Your task to perform on an android device: Open Google Chrome and open the bookmarks view Image 0: 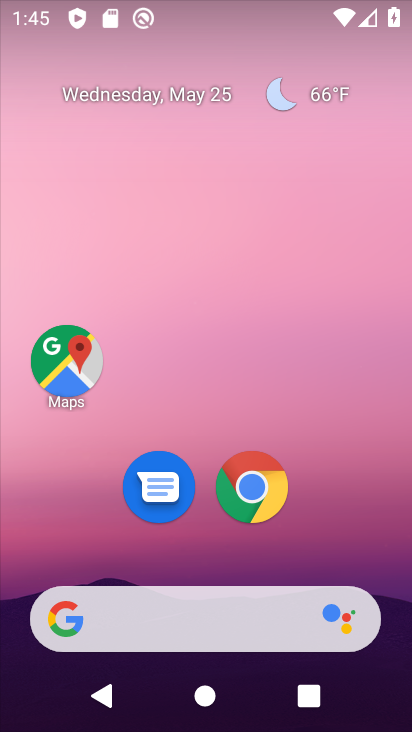
Step 0: drag from (207, 547) to (180, 250)
Your task to perform on an android device: Open Google Chrome and open the bookmarks view Image 1: 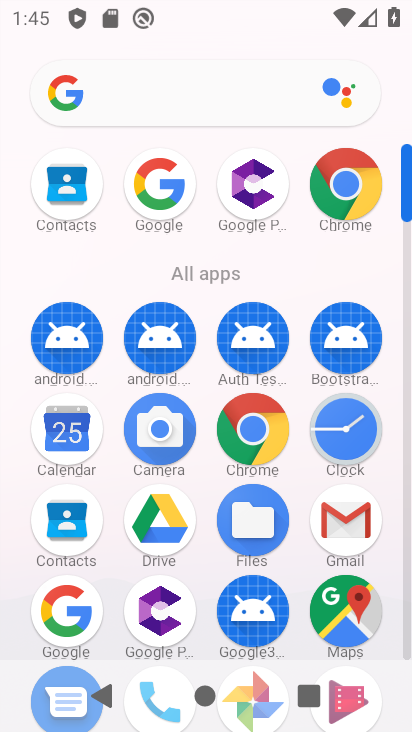
Step 1: click (352, 228)
Your task to perform on an android device: Open Google Chrome and open the bookmarks view Image 2: 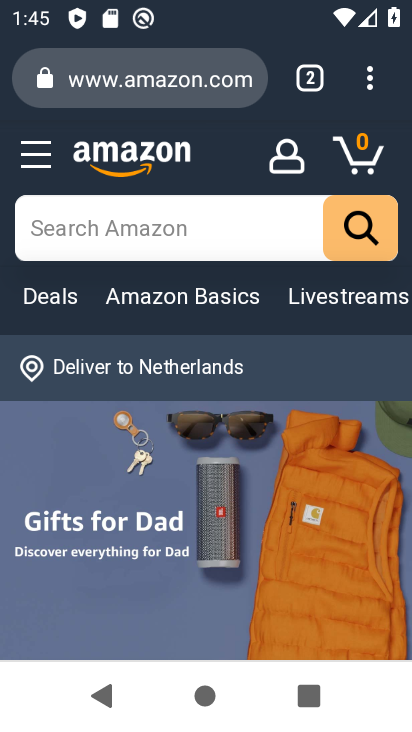
Step 2: click (367, 68)
Your task to perform on an android device: Open Google Chrome and open the bookmarks view Image 3: 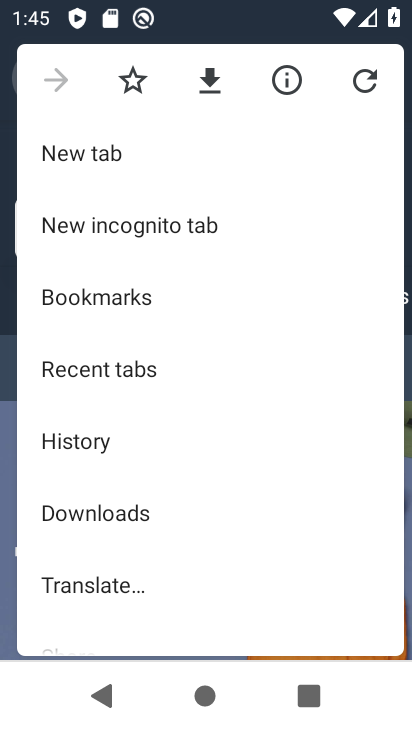
Step 3: click (104, 329)
Your task to perform on an android device: Open Google Chrome and open the bookmarks view Image 4: 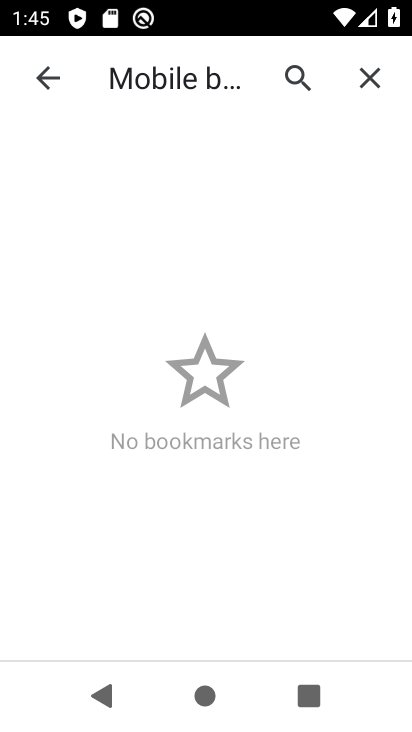
Step 4: task complete